Your task to perform on an android device: toggle notifications settings in the gmail app Image 0: 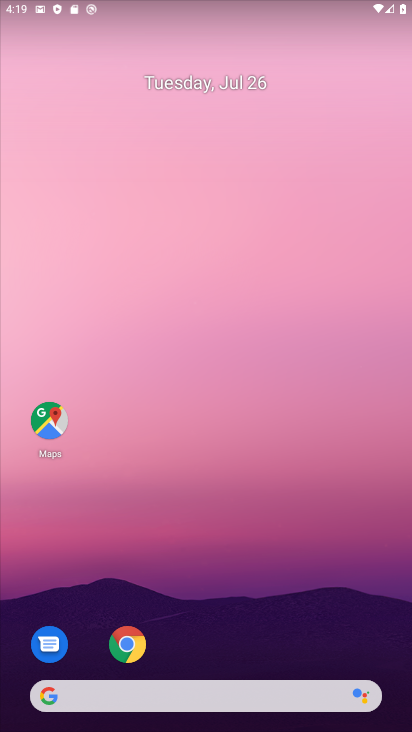
Step 0: drag from (236, 625) to (232, 13)
Your task to perform on an android device: toggle notifications settings in the gmail app Image 1: 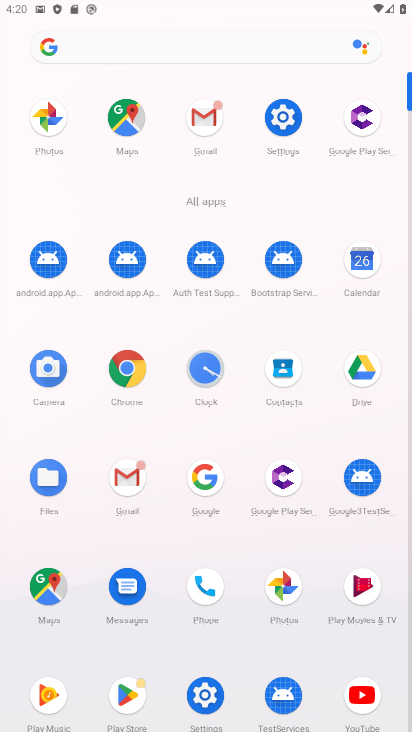
Step 1: click (210, 684)
Your task to perform on an android device: toggle notifications settings in the gmail app Image 2: 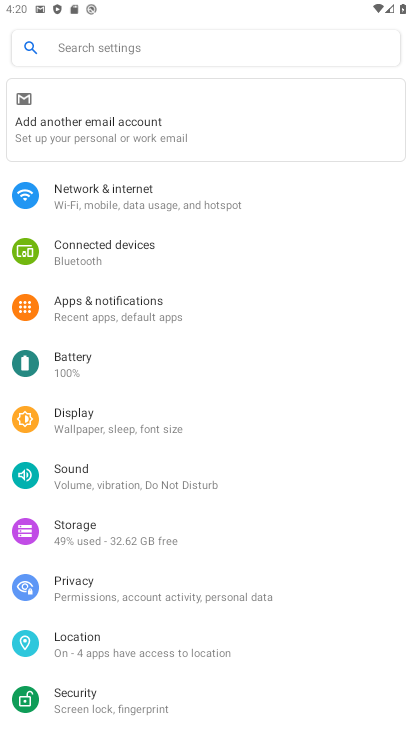
Step 2: press home button
Your task to perform on an android device: toggle notifications settings in the gmail app Image 3: 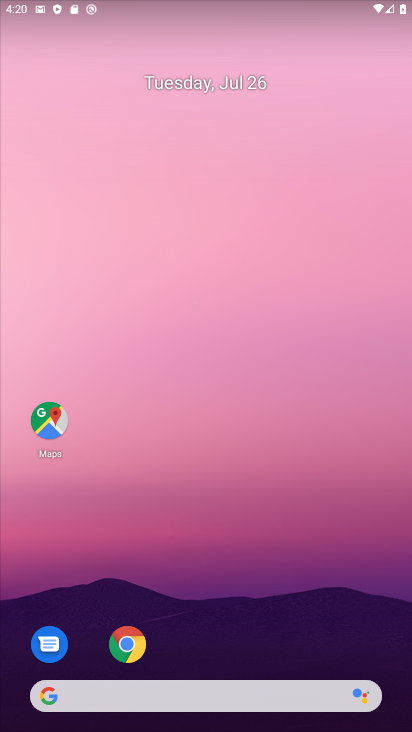
Step 3: drag from (221, 652) to (253, 5)
Your task to perform on an android device: toggle notifications settings in the gmail app Image 4: 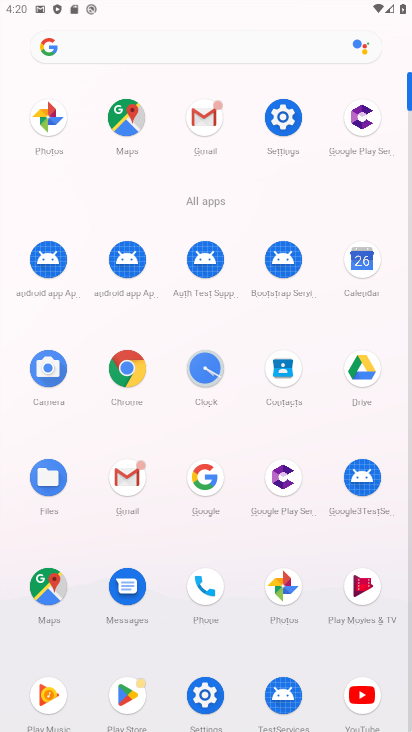
Step 4: click (128, 469)
Your task to perform on an android device: toggle notifications settings in the gmail app Image 5: 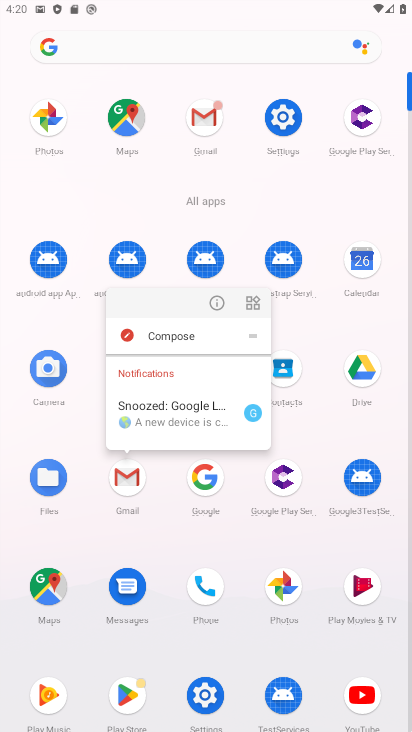
Step 5: click (221, 300)
Your task to perform on an android device: toggle notifications settings in the gmail app Image 6: 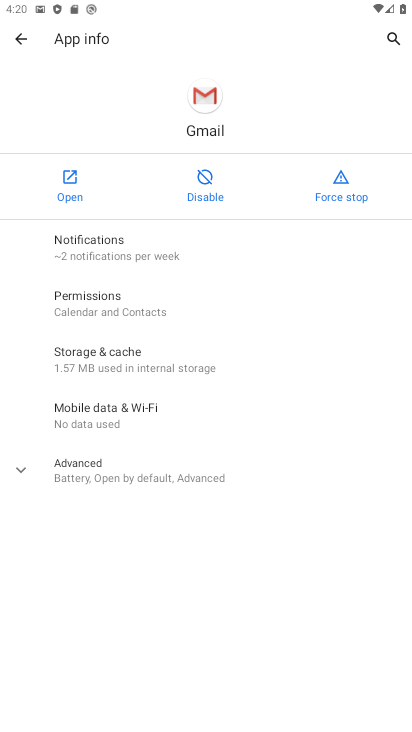
Step 6: click (175, 236)
Your task to perform on an android device: toggle notifications settings in the gmail app Image 7: 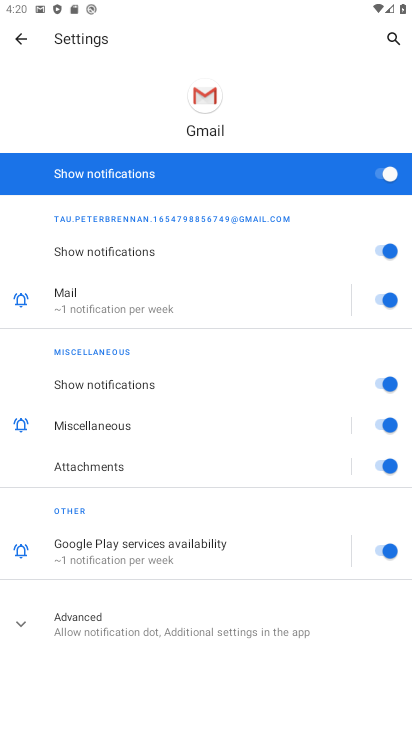
Step 7: click (365, 168)
Your task to perform on an android device: toggle notifications settings in the gmail app Image 8: 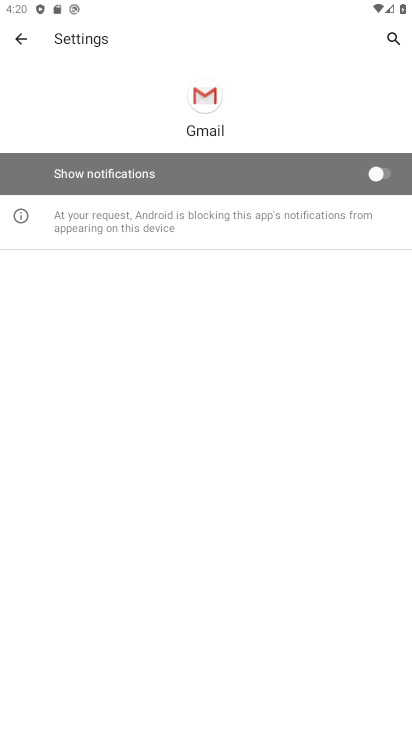
Step 8: task complete